Your task to perform on an android device: turn off location history Image 0: 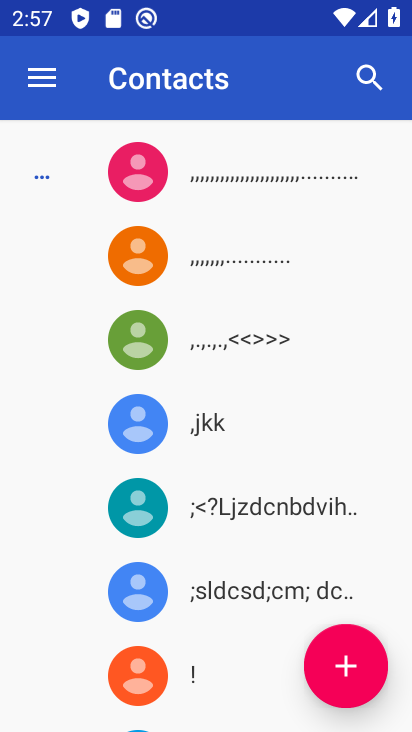
Step 0: press home button
Your task to perform on an android device: turn off location history Image 1: 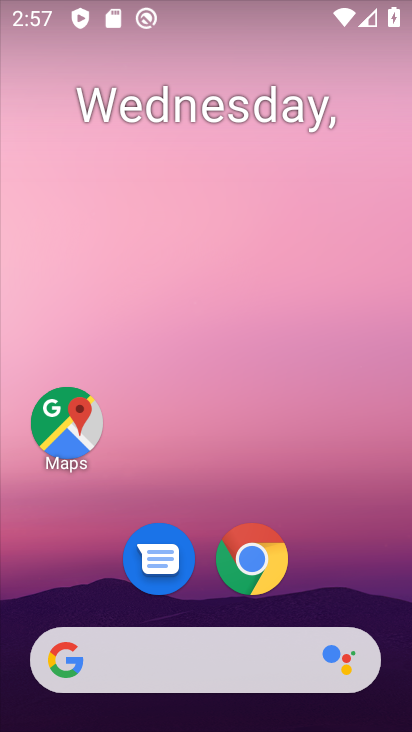
Step 1: drag from (350, 559) to (333, 174)
Your task to perform on an android device: turn off location history Image 2: 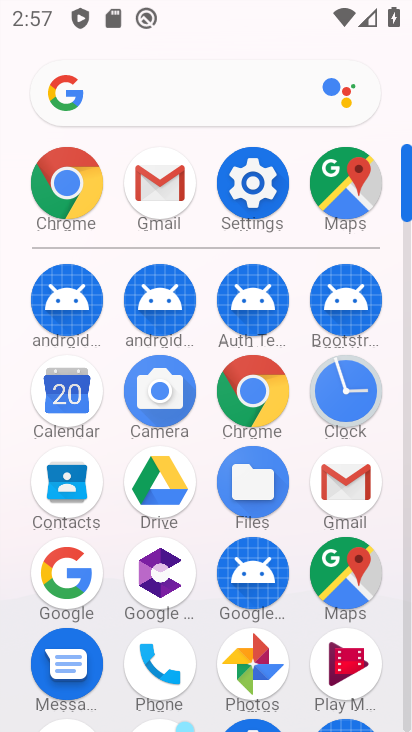
Step 2: click (254, 187)
Your task to perform on an android device: turn off location history Image 3: 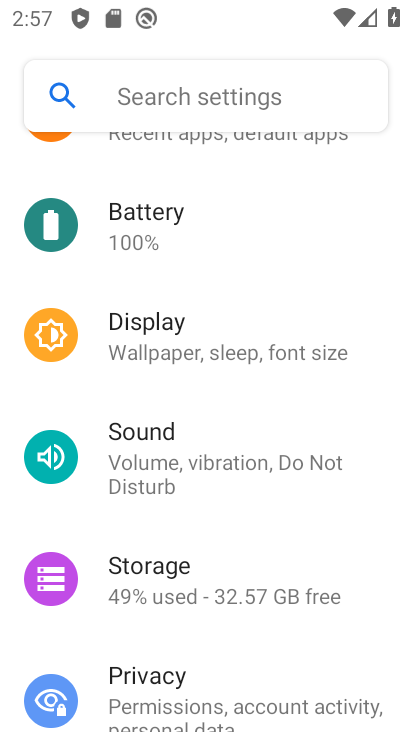
Step 3: drag from (276, 628) to (306, 290)
Your task to perform on an android device: turn off location history Image 4: 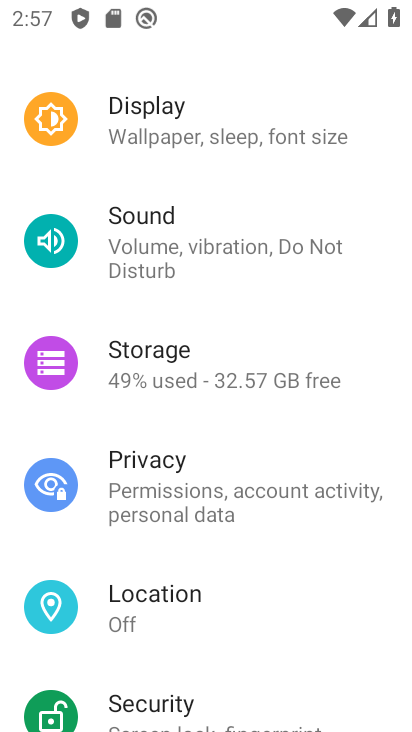
Step 4: click (189, 607)
Your task to perform on an android device: turn off location history Image 5: 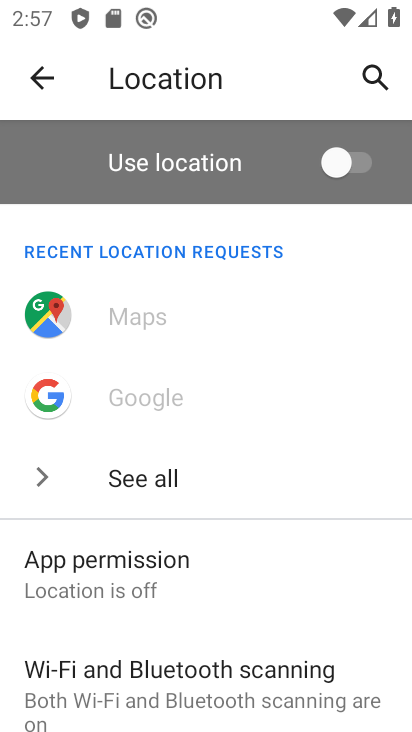
Step 5: drag from (283, 583) to (329, 293)
Your task to perform on an android device: turn off location history Image 6: 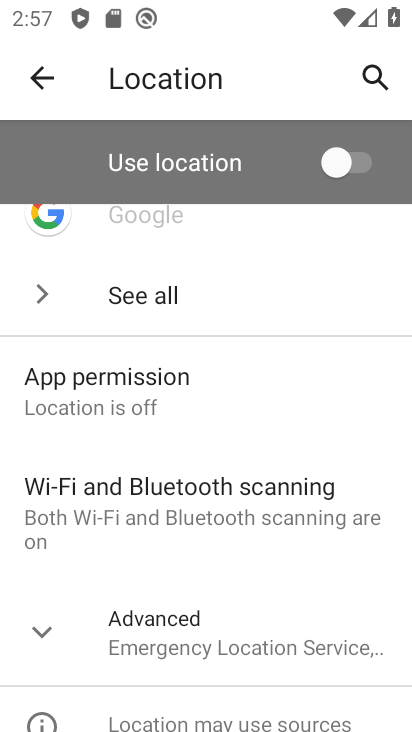
Step 6: click (273, 633)
Your task to perform on an android device: turn off location history Image 7: 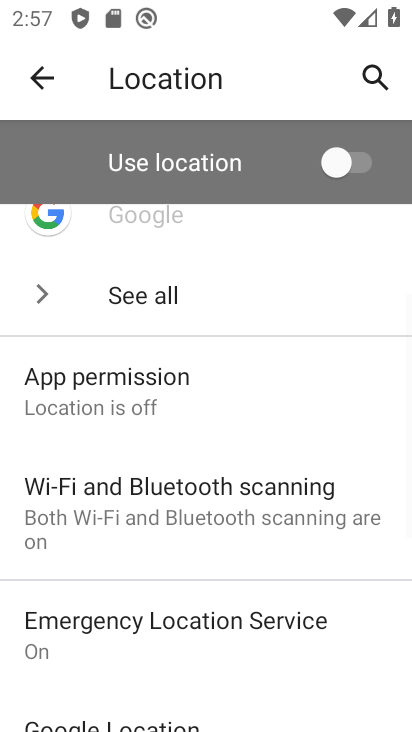
Step 7: drag from (177, 617) to (294, 297)
Your task to perform on an android device: turn off location history Image 8: 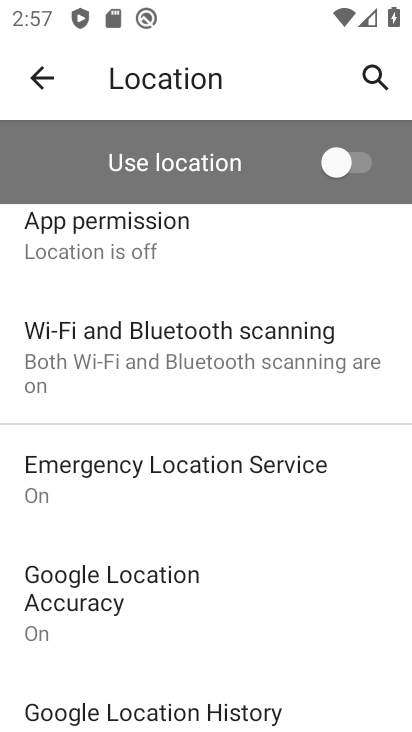
Step 8: drag from (265, 619) to (284, 358)
Your task to perform on an android device: turn off location history Image 9: 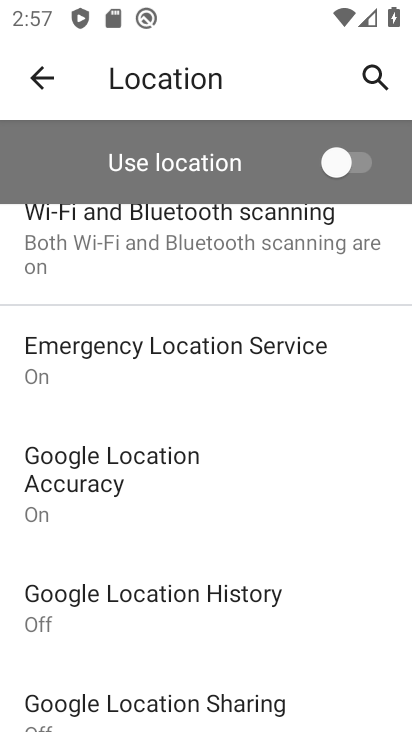
Step 9: click (202, 601)
Your task to perform on an android device: turn off location history Image 10: 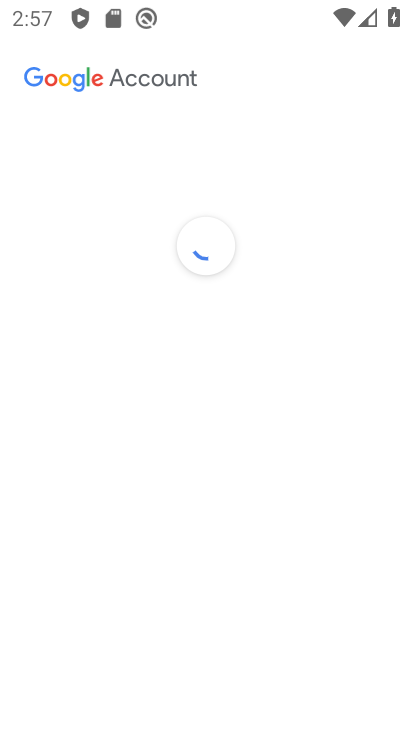
Step 10: task complete